Your task to perform on an android device: Search for "jbl flip 4" on costco, select the first entry, and add it to the cart. Image 0: 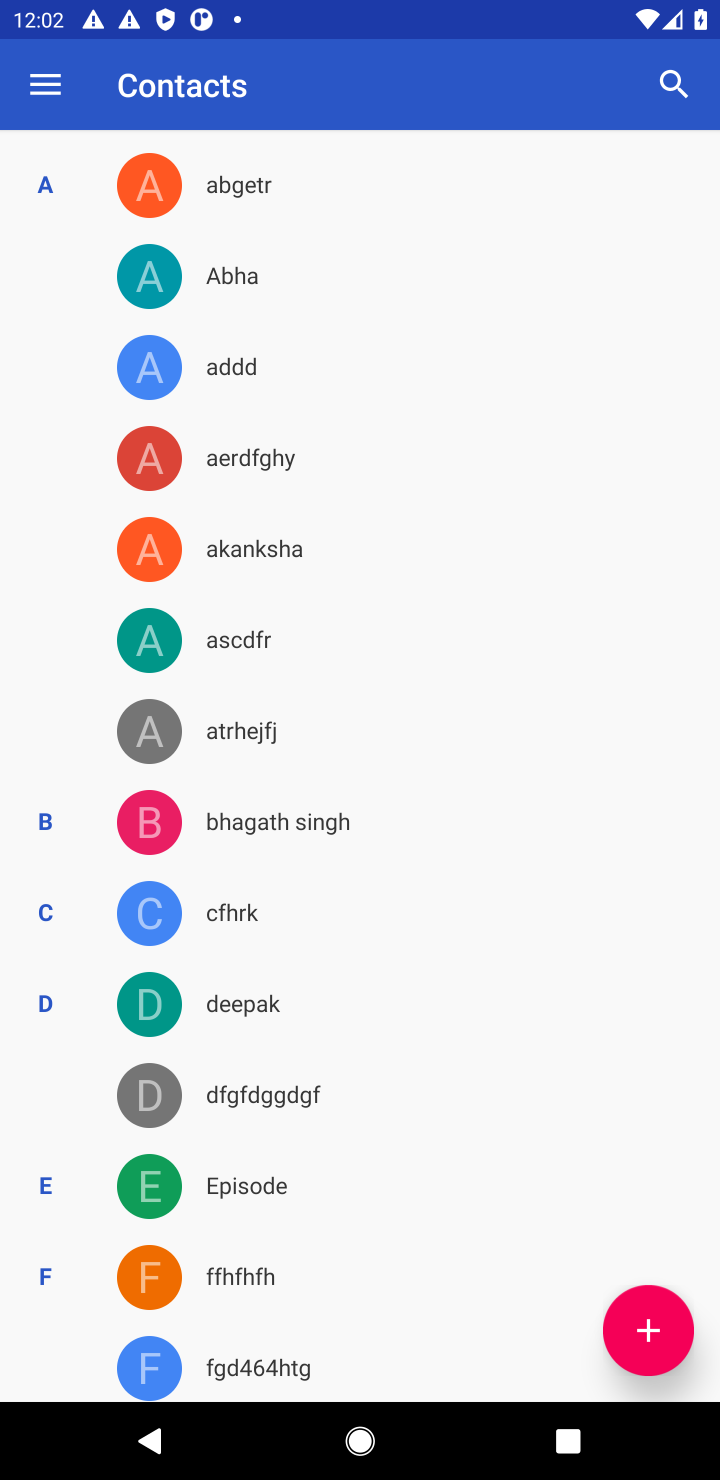
Step 0: press home button
Your task to perform on an android device: Search for "jbl flip 4" on costco, select the first entry, and add it to the cart. Image 1: 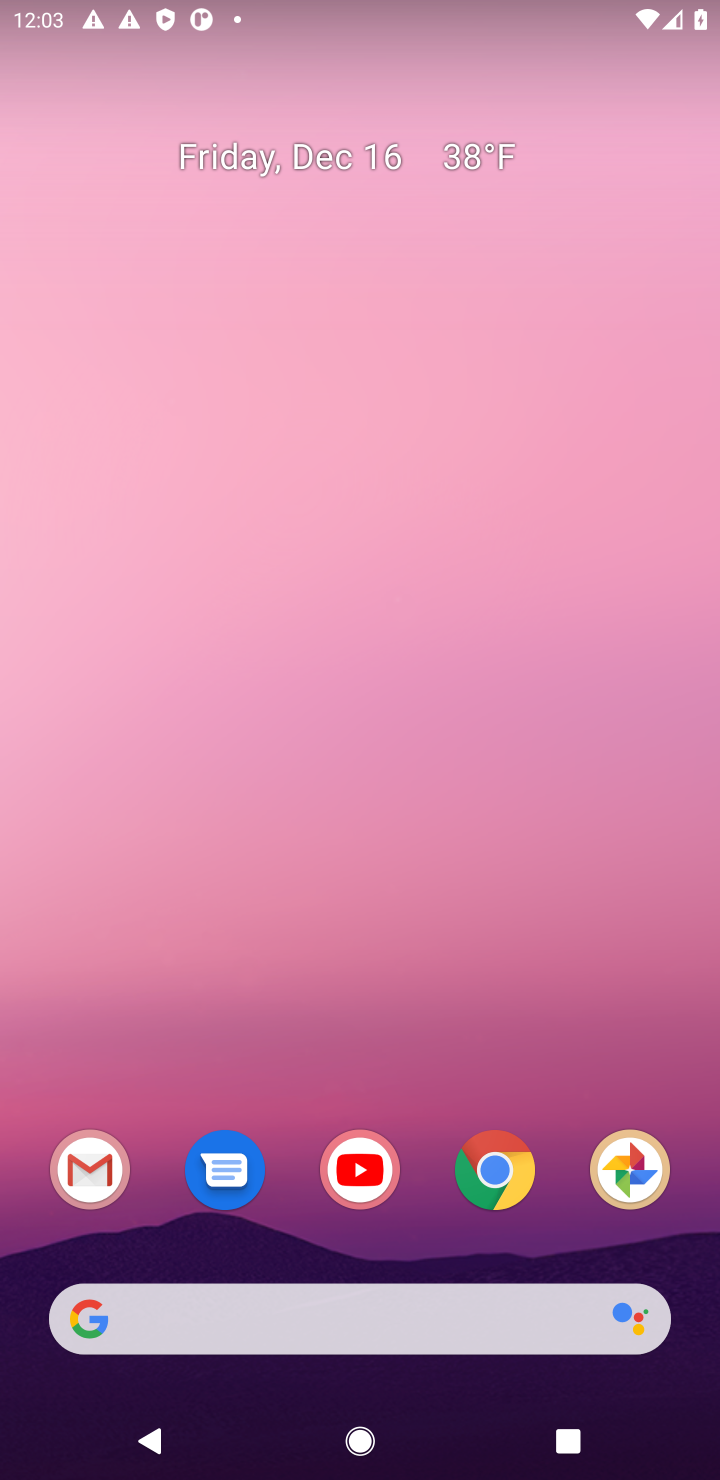
Step 1: click (499, 1167)
Your task to perform on an android device: Search for "jbl flip 4" on costco, select the first entry, and add it to the cart. Image 2: 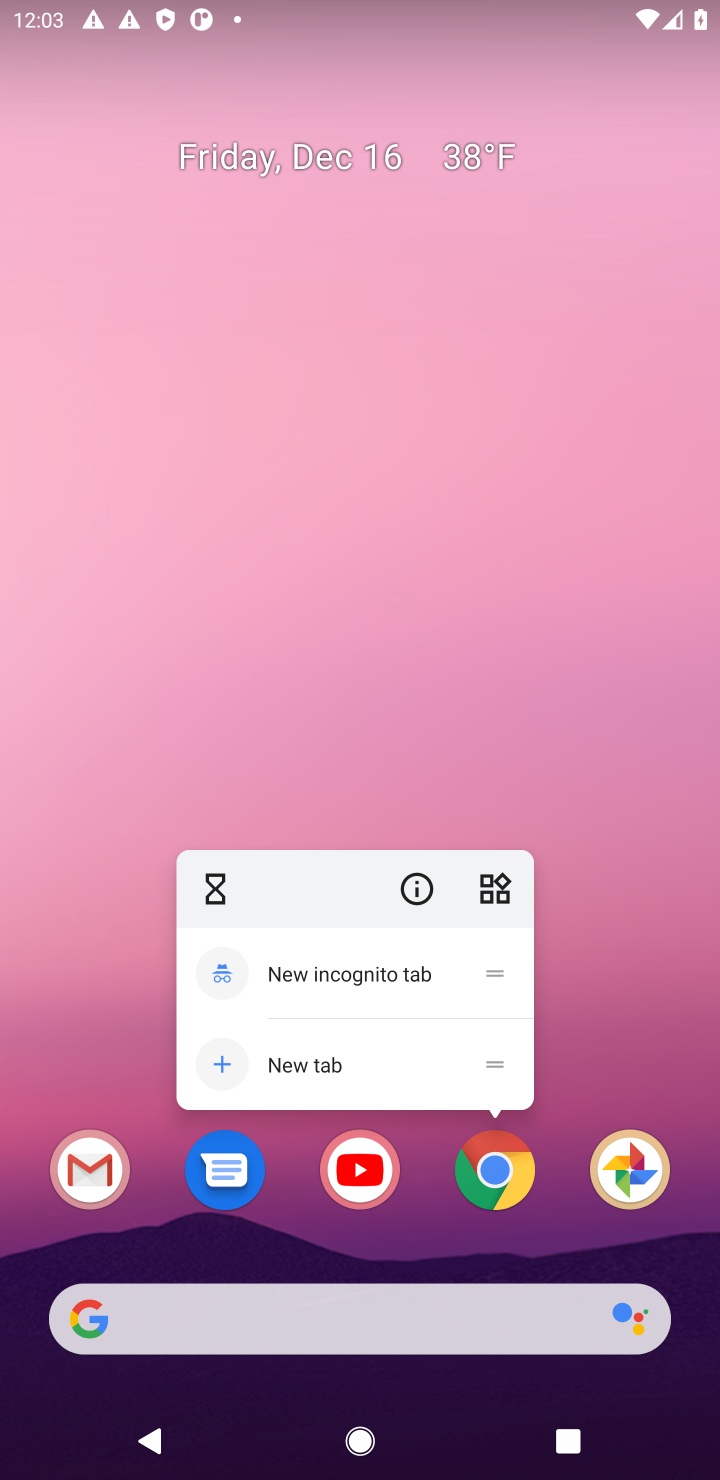
Step 2: click (499, 1167)
Your task to perform on an android device: Search for "jbl flip 4" on costco, select the first entry, and add it to the cart. Image 3: 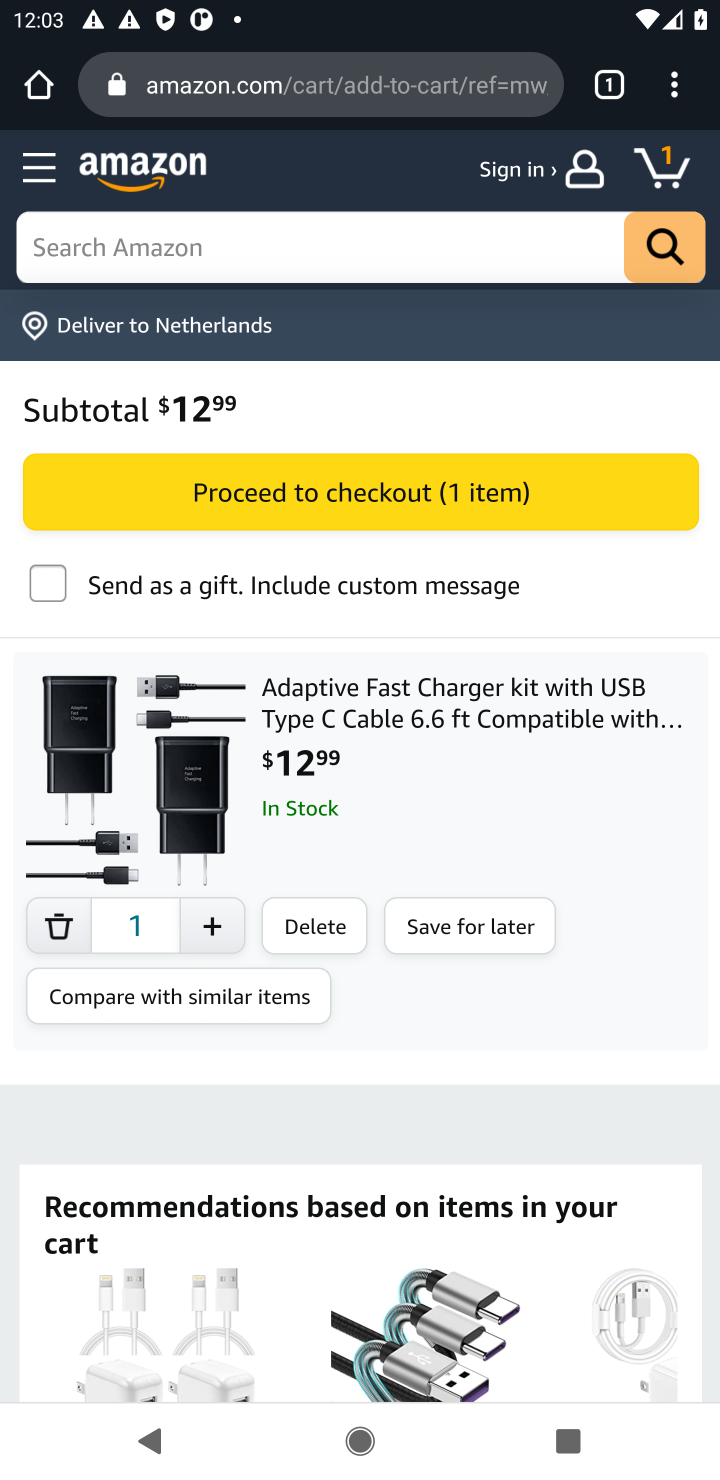
Step 3: click (278, 98)
Your task to perform on an android device: Search for "jbl flip 4" on costco, select the first entry, and add it to the cart. Image 4: 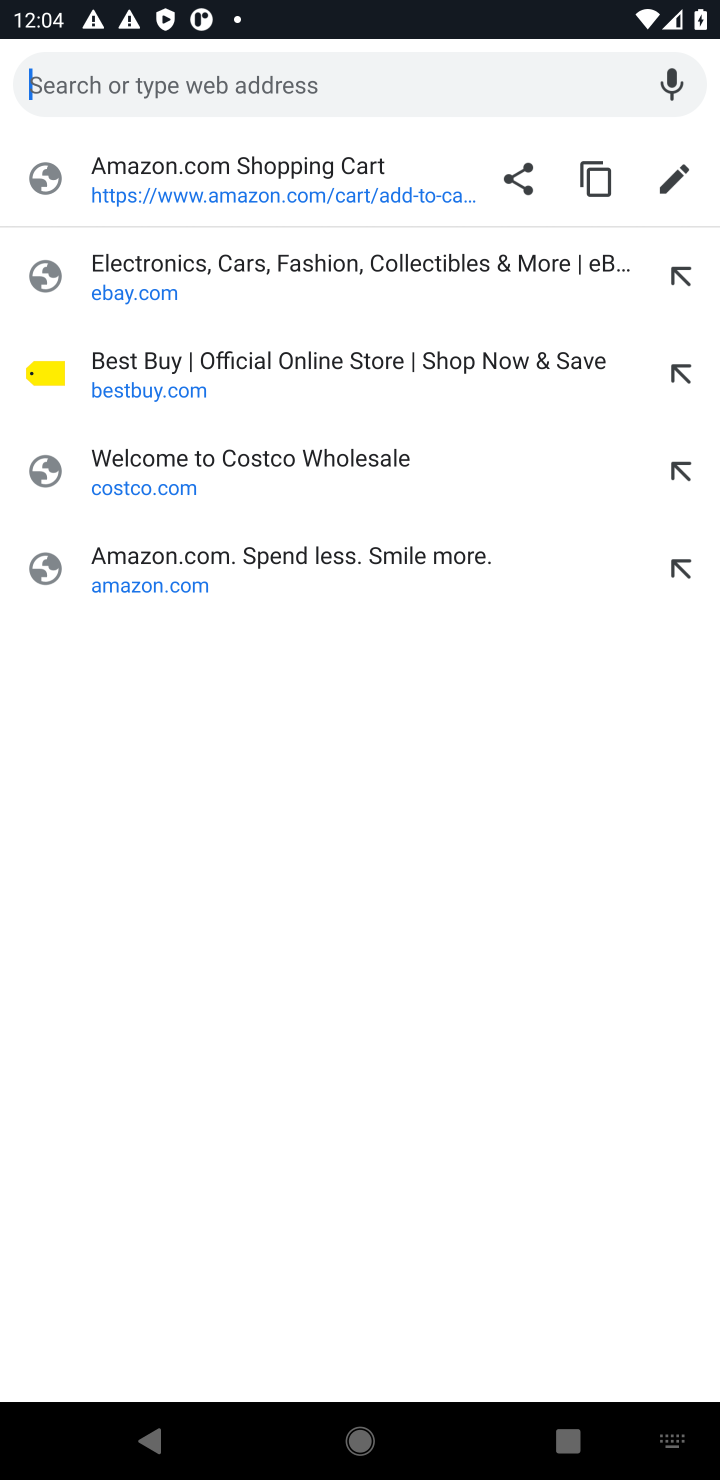
Step 4: click (123, 472)
Your task to perform on an android device: Search for "jbl flip 4" on costco, select the first entry, and add it to the cart. Image 5: 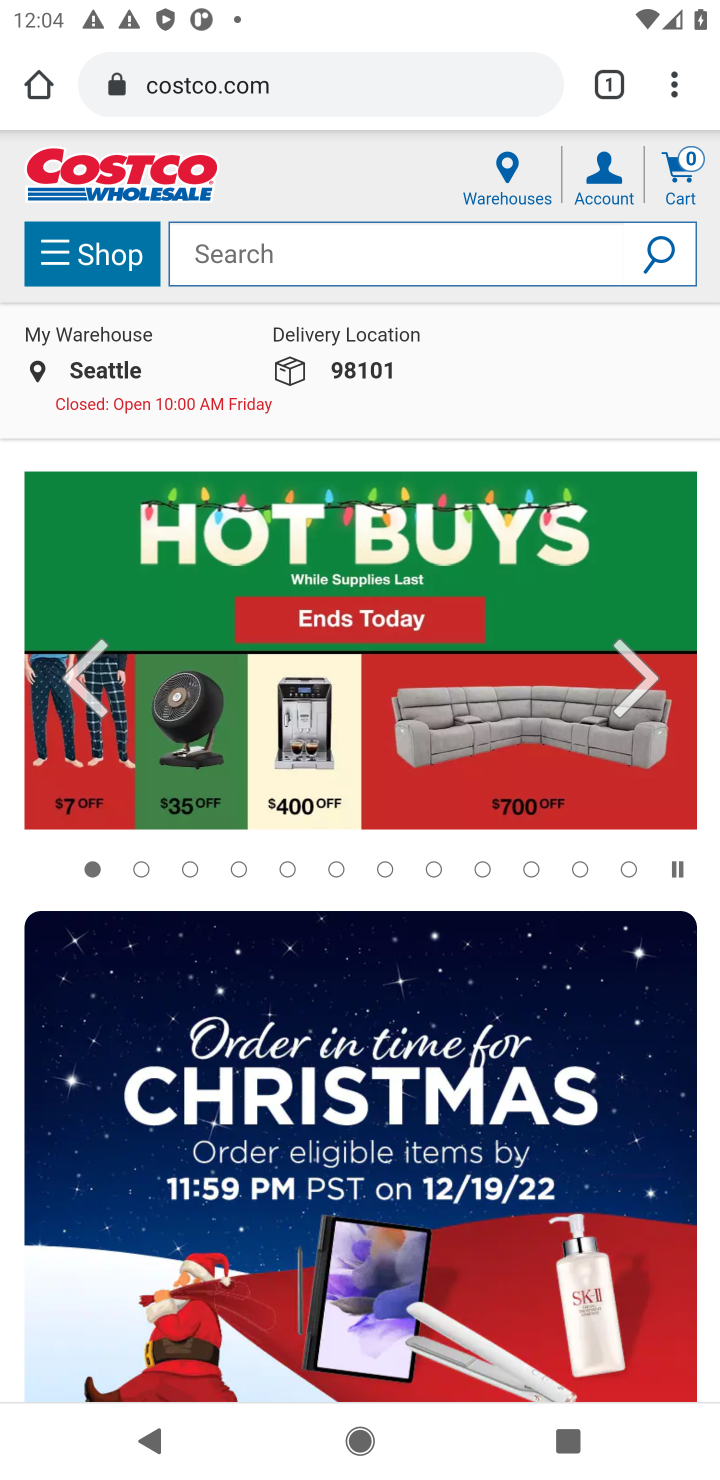
Step 5: click (232, 264)
Your task to perform on an android device: Search for "jbl flip 4" on costco, select the first entry, and add it to the cart. Image 6: 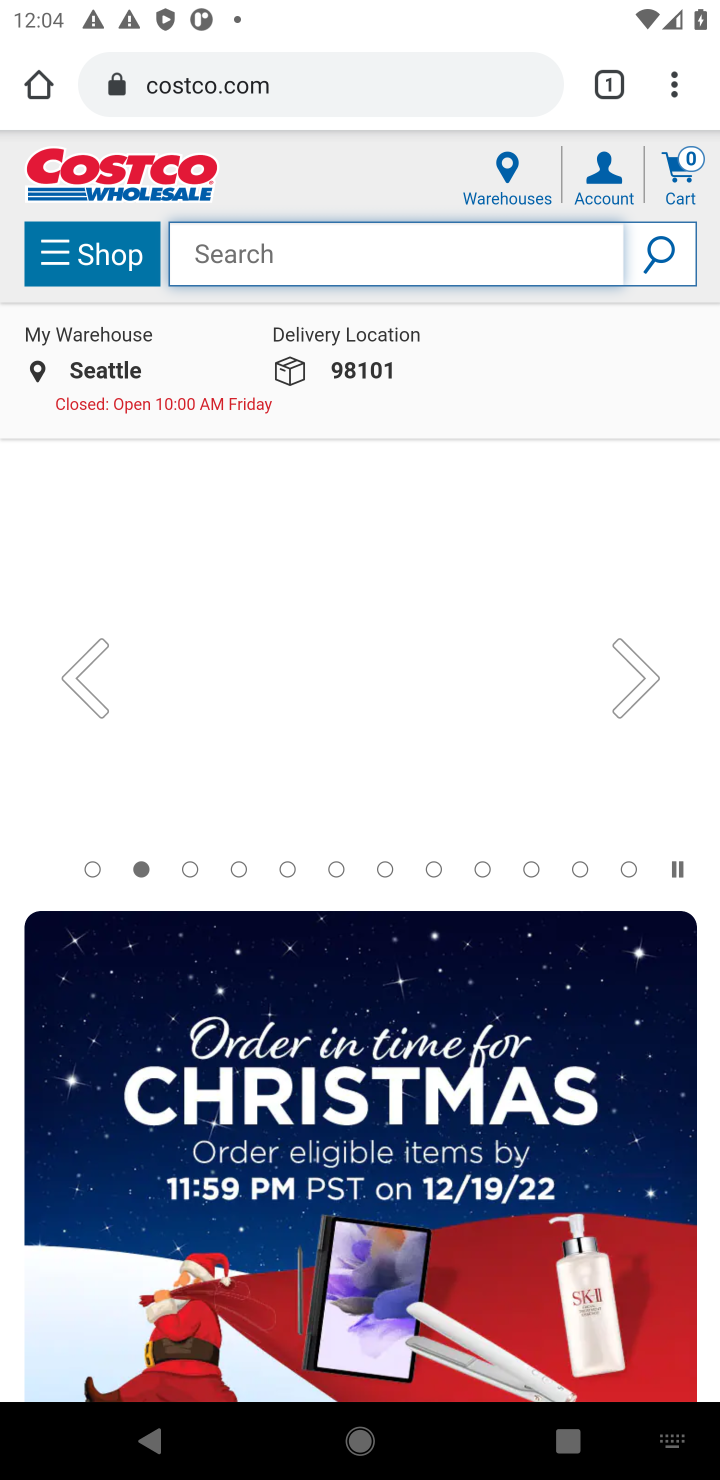
Step 6: type "jbl flip 4"
Your task to perform on an android device: Search for "jbl flip 4" on costco, select the first entry, and add it to the cart. Image 7: 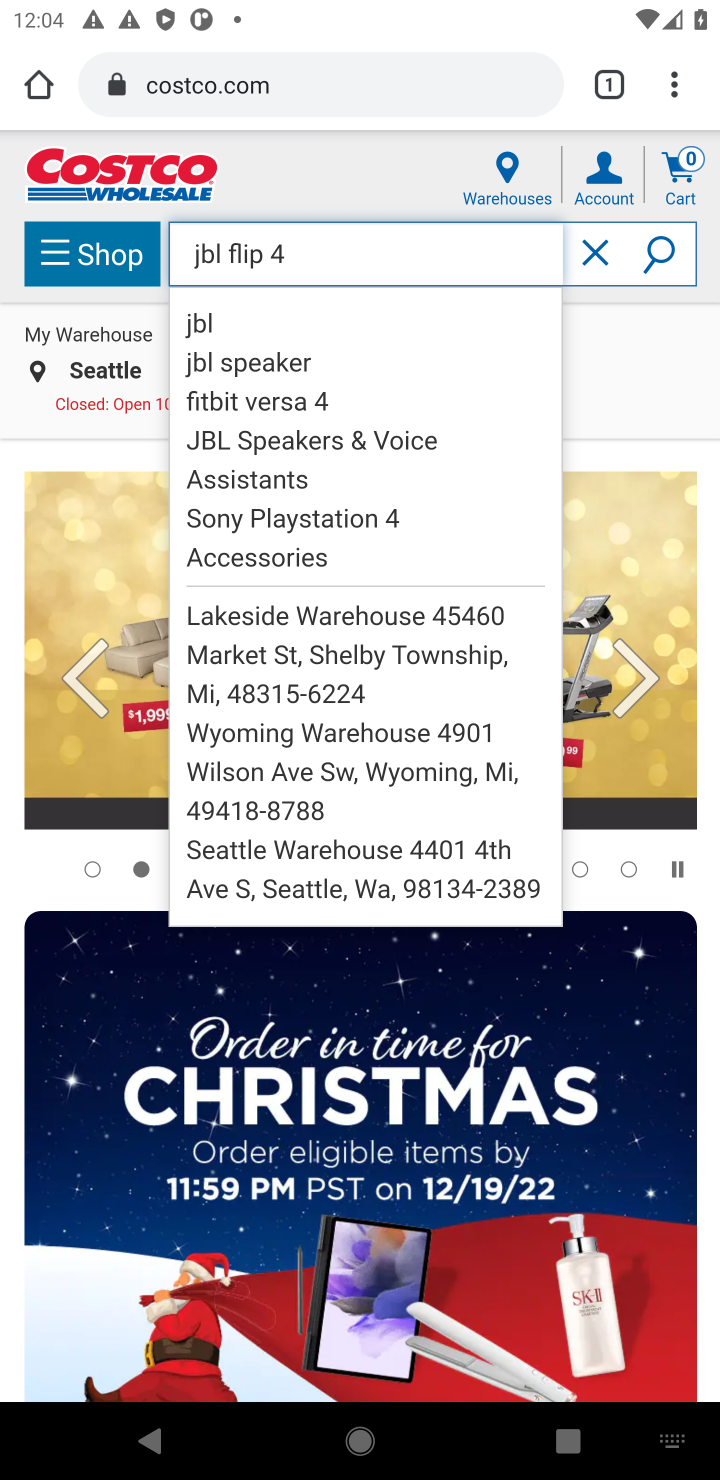
Step 7: click (660, 267)
Your task to perform on an android device: Search for "jbl flip 4" on costco, select the first entry, and add it to the cart. Image 8: 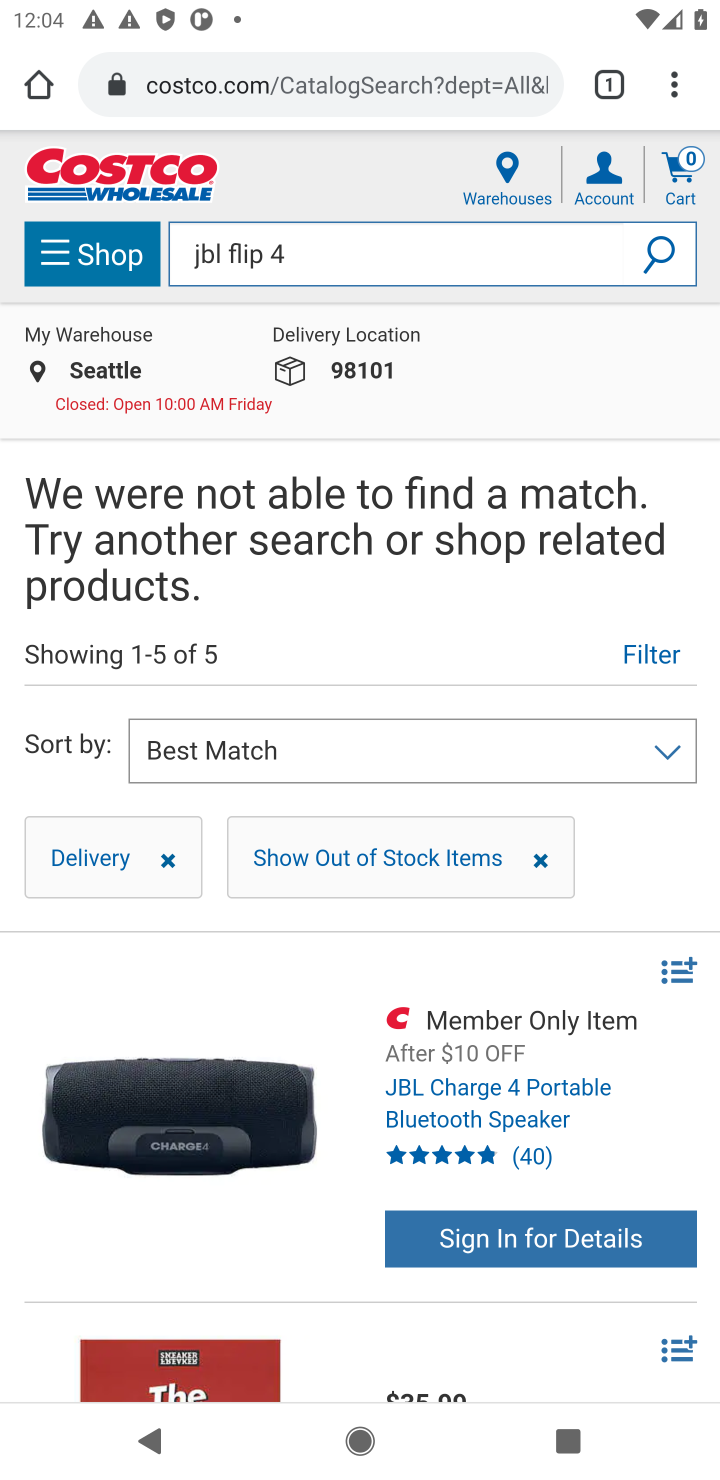
Step 8: task complete